Your task to perform on an android device: Go to sound settings Image 0: 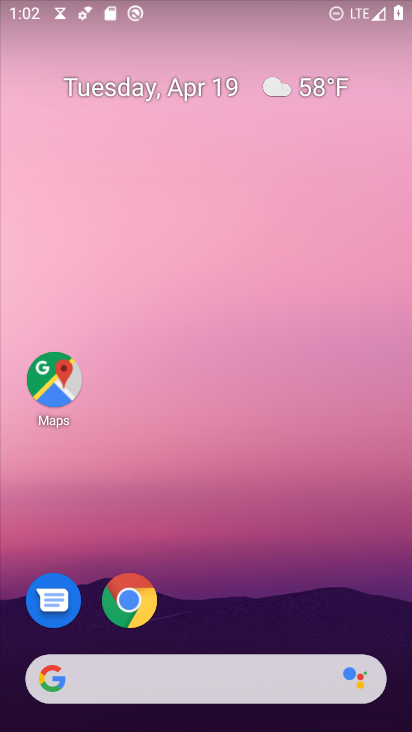
Step 0: drag from (129, 547) to (111, 216)
Your task to perform on an android device: Go to sound settings Image 1: 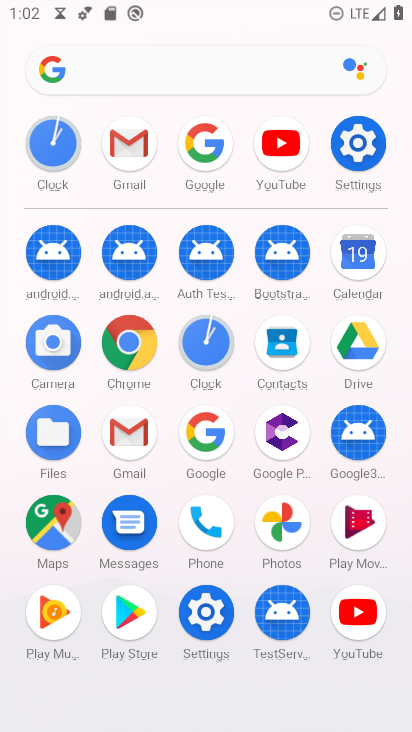
Step 1: click (362, 150)
Your task to perform on an android device: Go to sound settings Image 2: 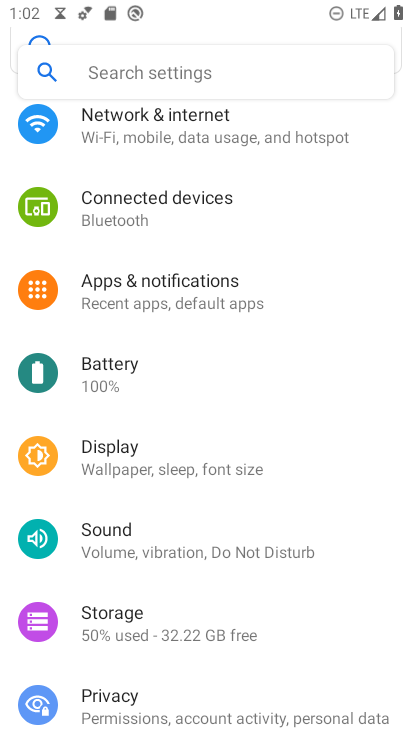
Step 2: click (113, 522)
Your task to perform on an android device: Go to sound settings Image 3: 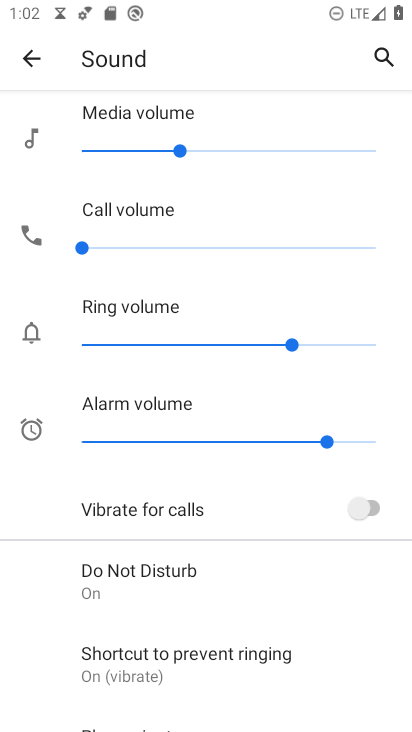
Step 3: task complete